Your task to perform on an android device: Check the weather Image 0: 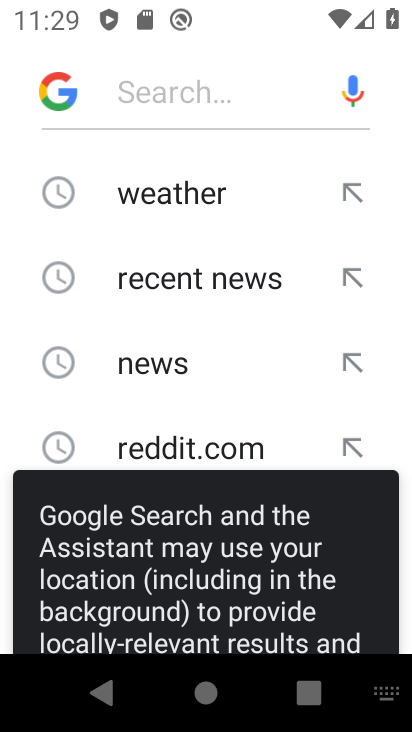
Step 0: click (162, 183)
Your task to perform on an android device: Check the weather Image 1: 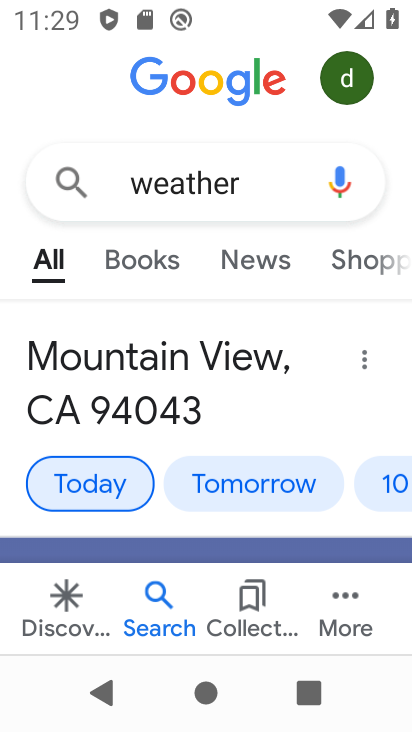
Step 1: task complete